Your task to perform on an android device: Open CNN.com Image 0: 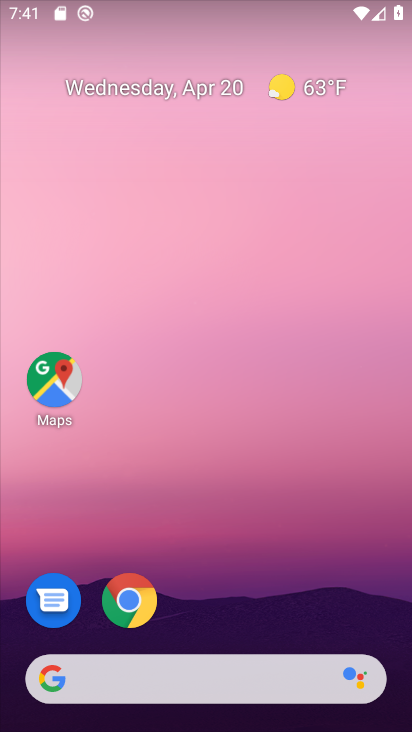
Step 0: click (134, 600)
Your task to perform on an android device: Open CNN.com Image 1: 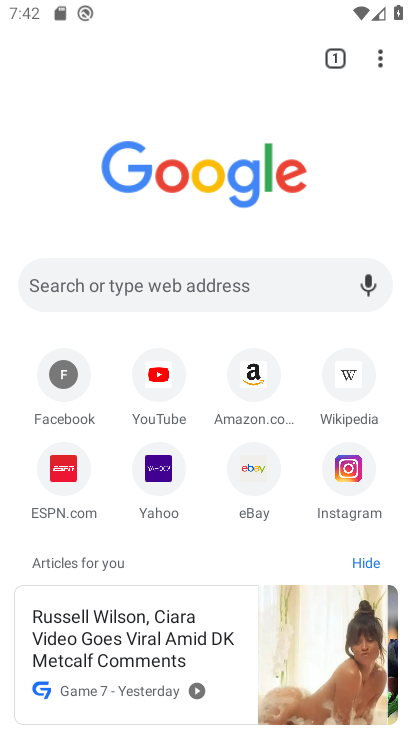
Step 1: click (149, 281)
Your task to perform on an android device: Open CNN.com Image 2: 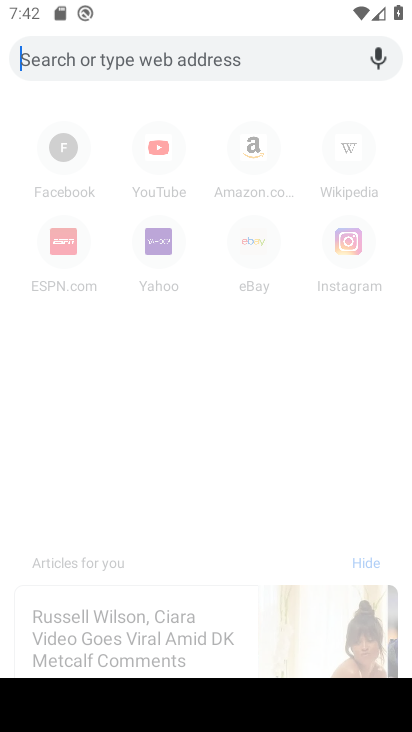
Step 2: type "CNN.COM"
Your task to perform on an android device: Open CNN.com Image 3: 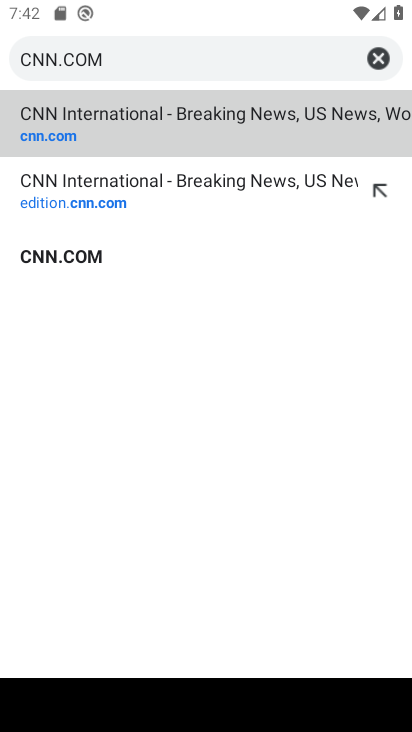
Step 3: click (122, 258)
Your task to perform on an android device: Open CNN.com Image 4: 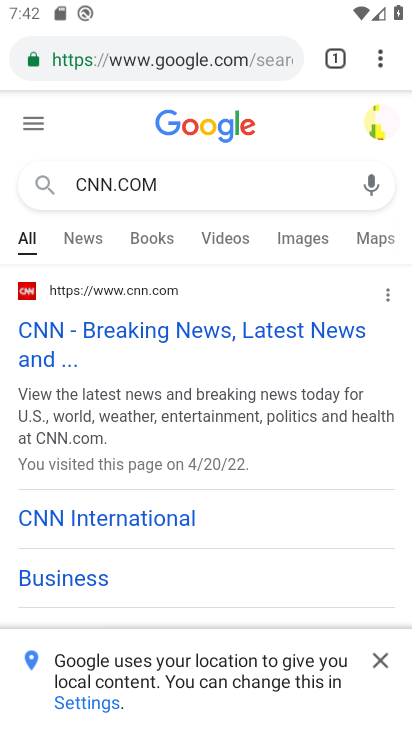
Step 4: task complete